Your task to perform on an android device: Show me recent news Image 0: 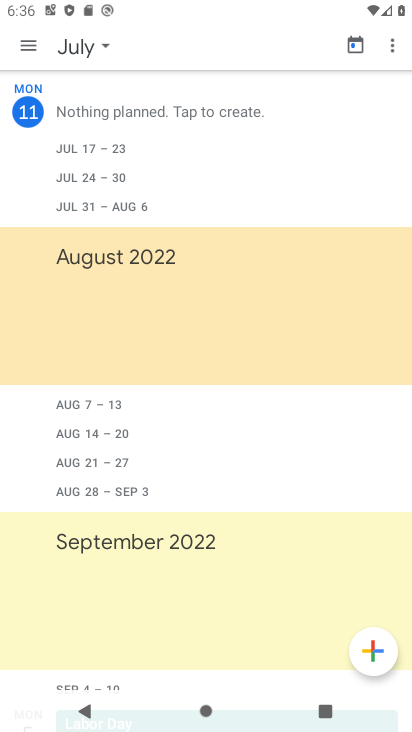
Step 0: press home button
Your task to perform on an android device: Show me recent news Image 1: 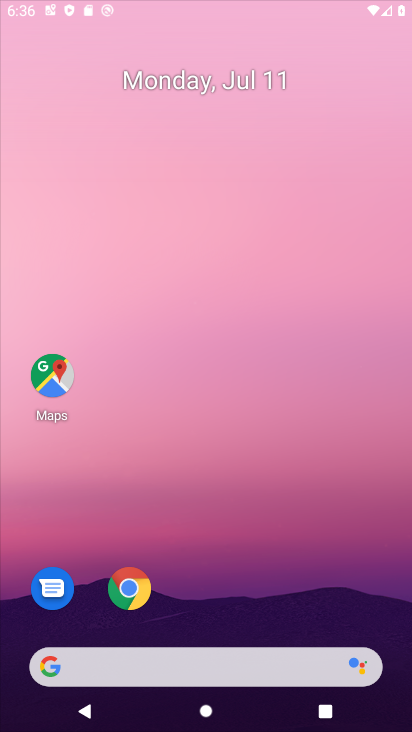
Step 1: drag from (394, 665) to (258, 37)
Your task to perform on an android device: Show me recent news Image 2: 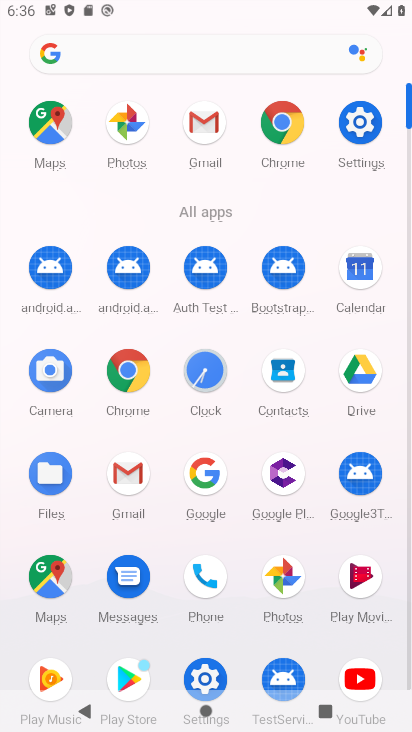
Step 2: click (203, 475)
Your task to perform on an android device: Show me recent news Image 3: 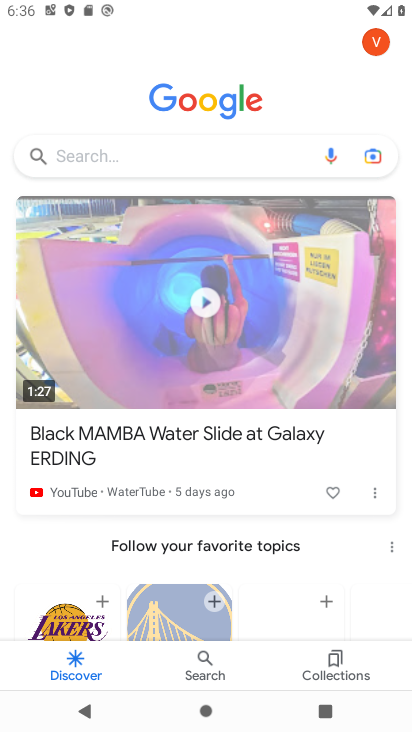
Step 3: click (138, 161)
Your task to perform on an android device: Show me recent news Image 4: 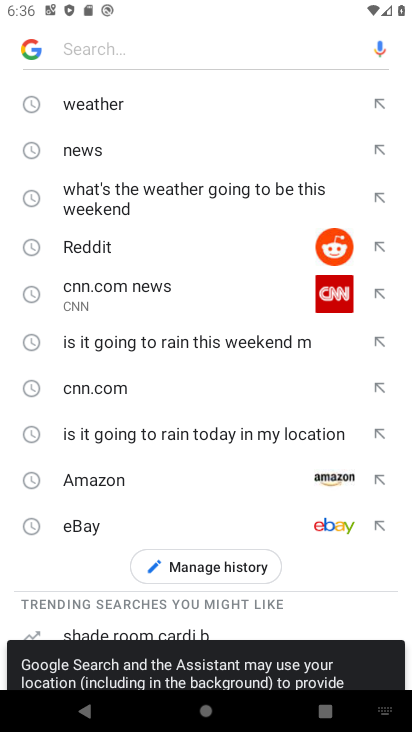
Step 4: type "Show me recent news"
Your task to perform on an android device: Show me recent news Image 5: 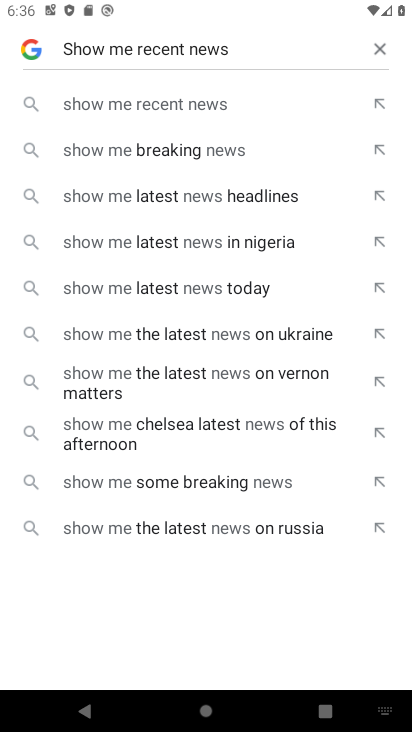
Step 5: click (176, 115)
Your task to perform on an android device: Show me recent news Image 6: 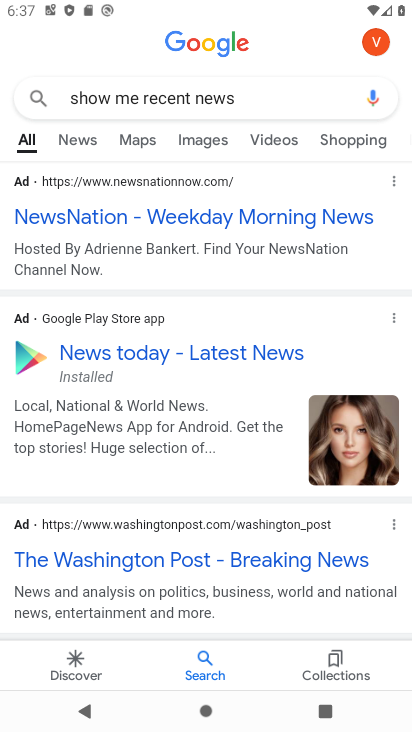
Step 6: task complete